Your task to perform on an android device: set the timer Image 0: 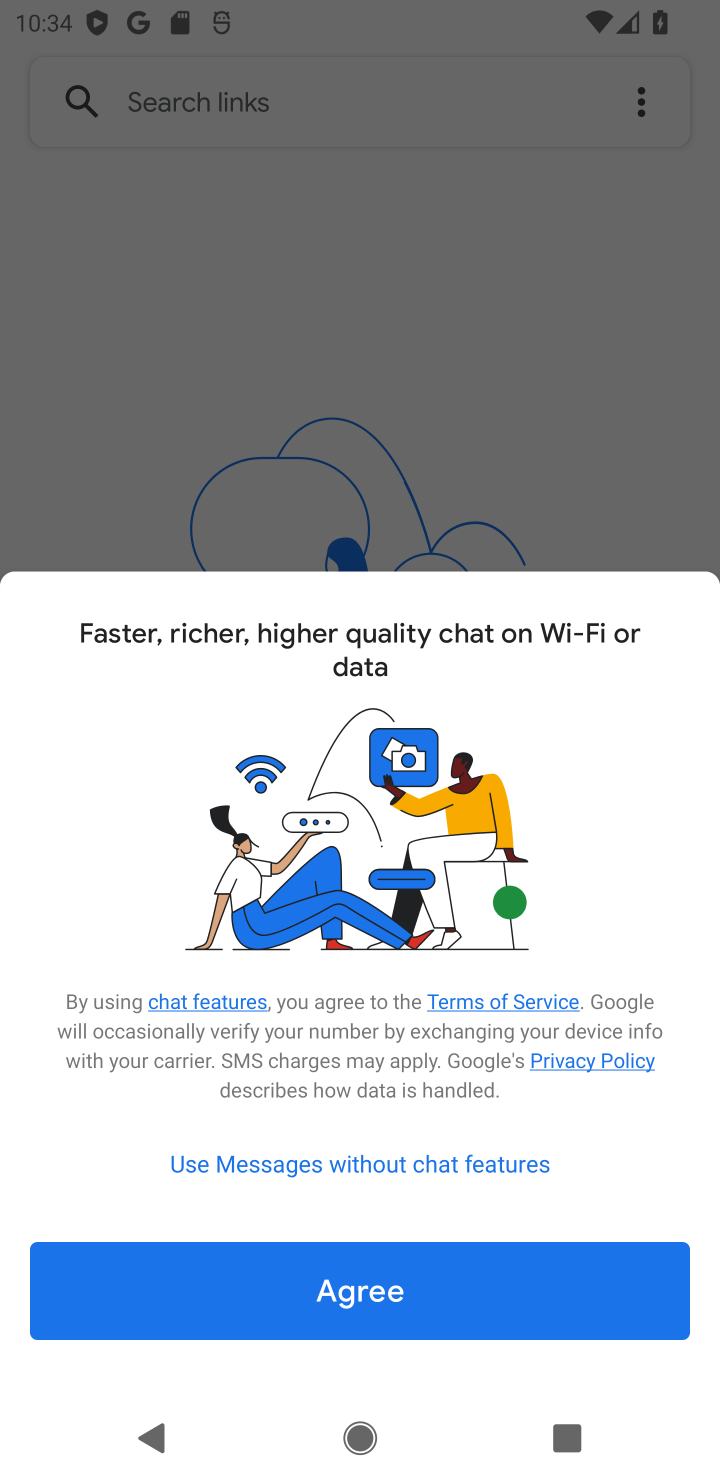
Step 0: press home button
Your task to perform on an android device: set the timer Image 1: 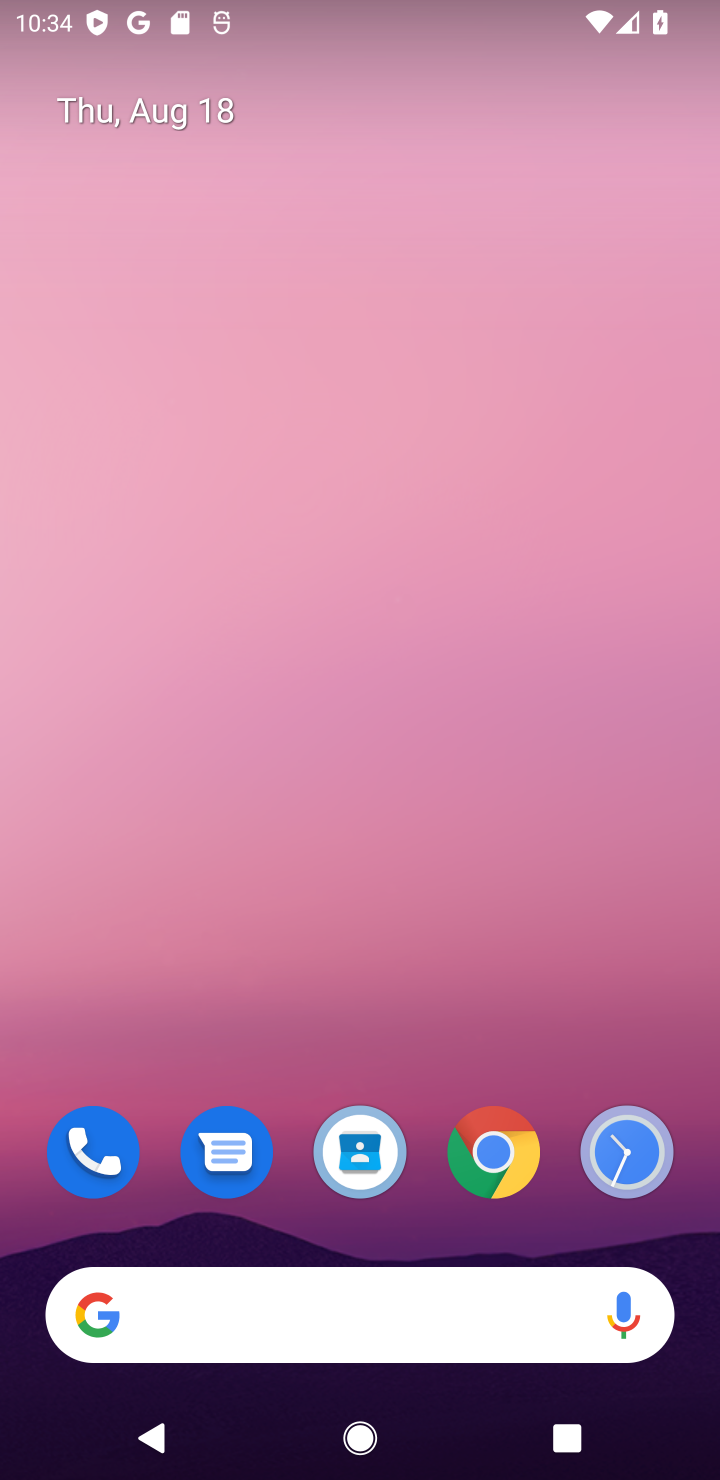
Step 1: click (639, 1158)
Your task to perform on an android device: set the timer Image 2: 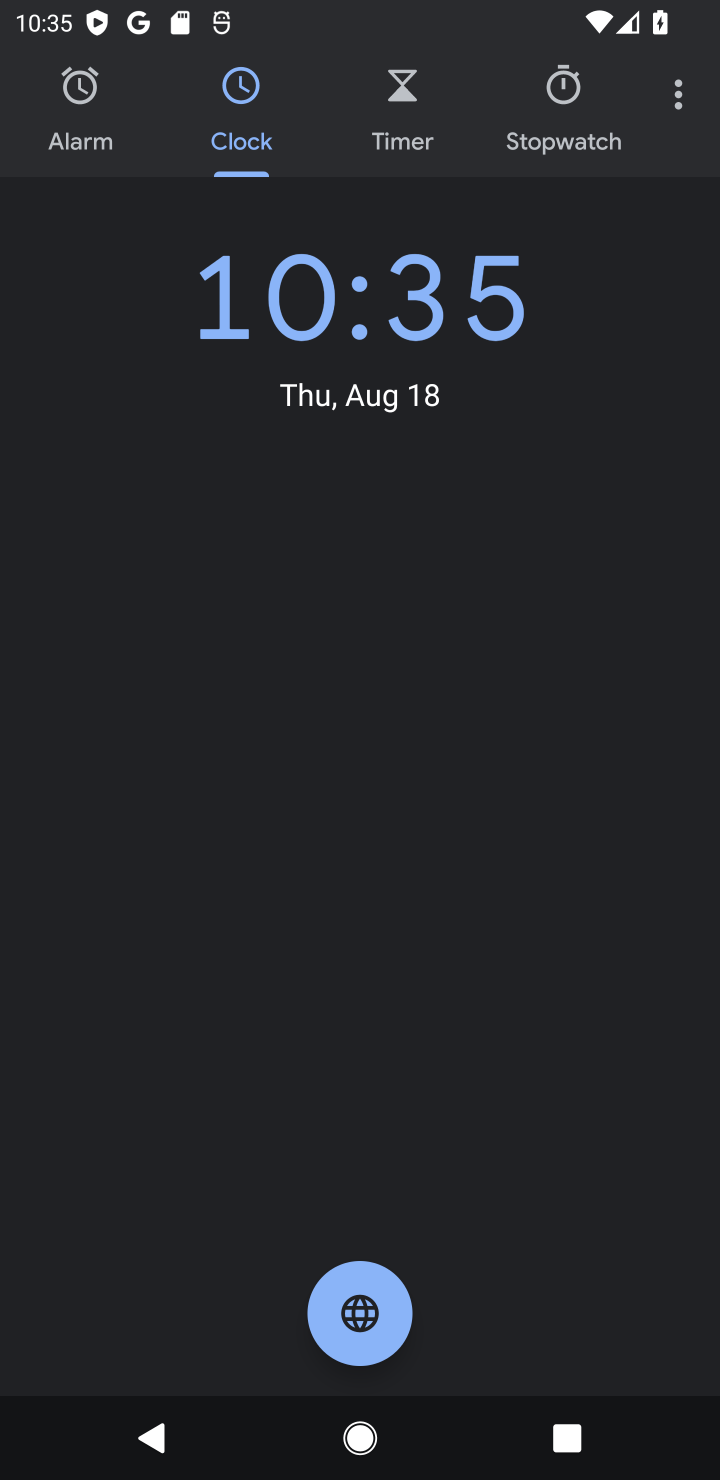
Step 2: click (412, 114)
Your task to perform on an android device: set the timer Image 3: 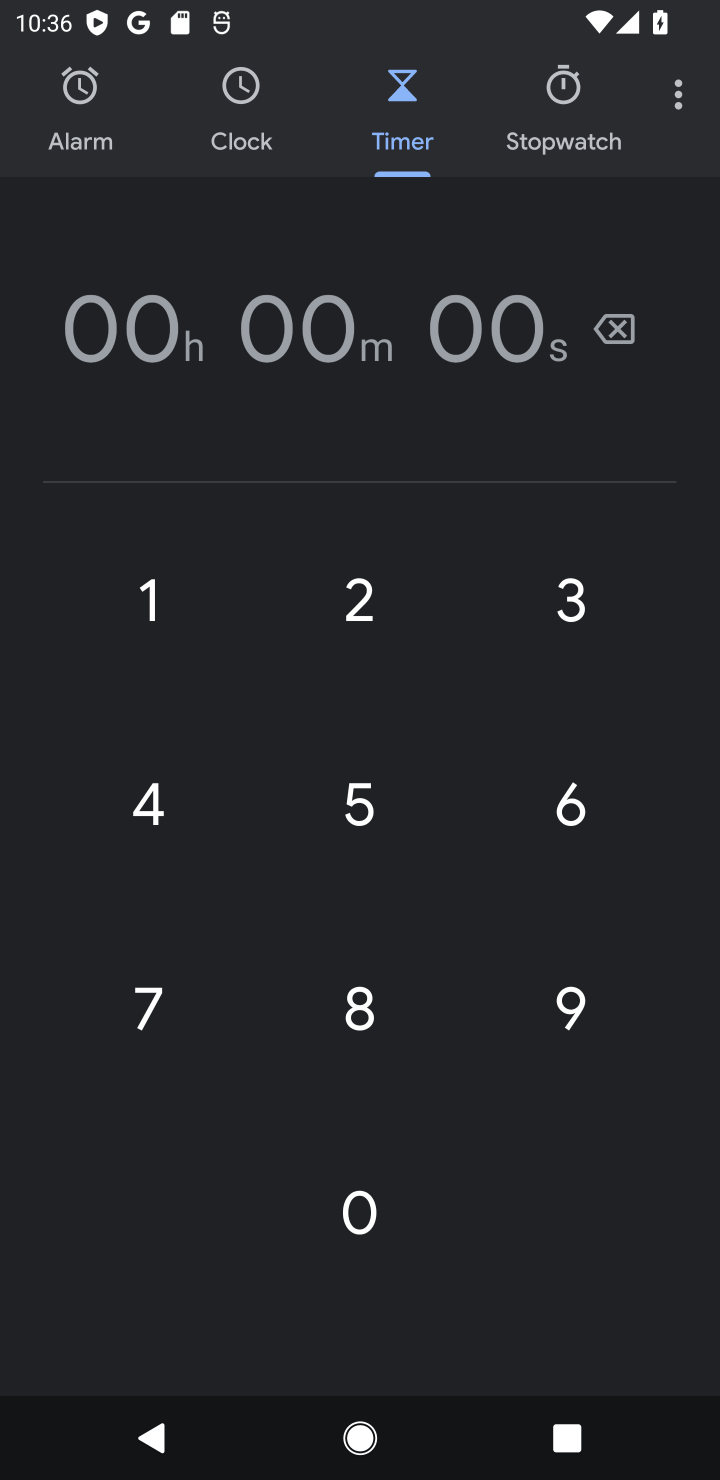
Step 3: task complete